Your task to perform on an android device: open chrome and create a bookmark for the current page Image 0: 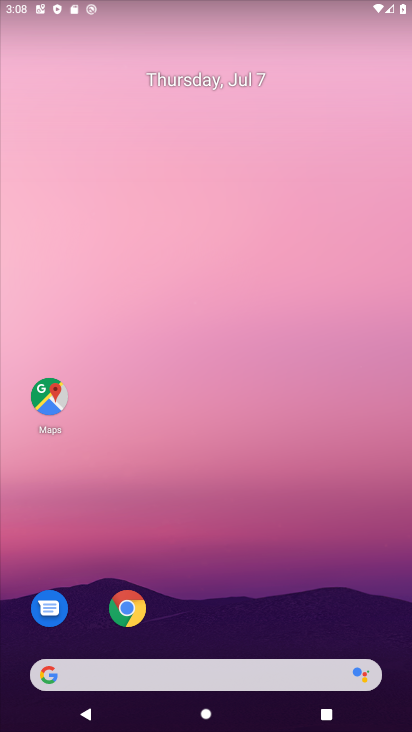
Step 0: drag from (224, 480) to (208, 2)
Your task to perform on an android device: open chrome and create a bookmark for the current page Image 1: 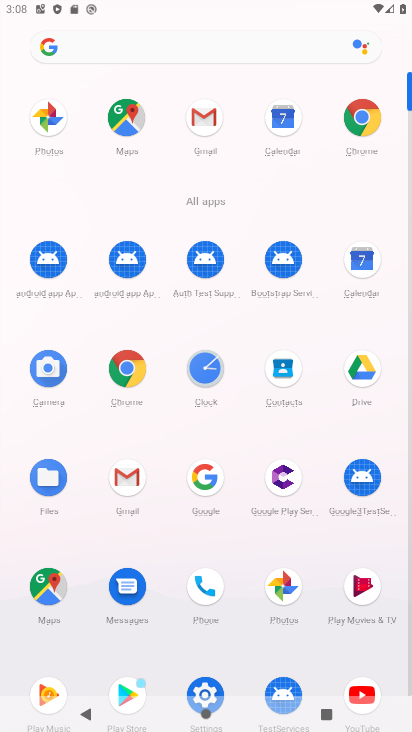
Step 1: click (126, 360)
Your task to perform on an android device: open chrome and create a bookmark for the current page Image 2: 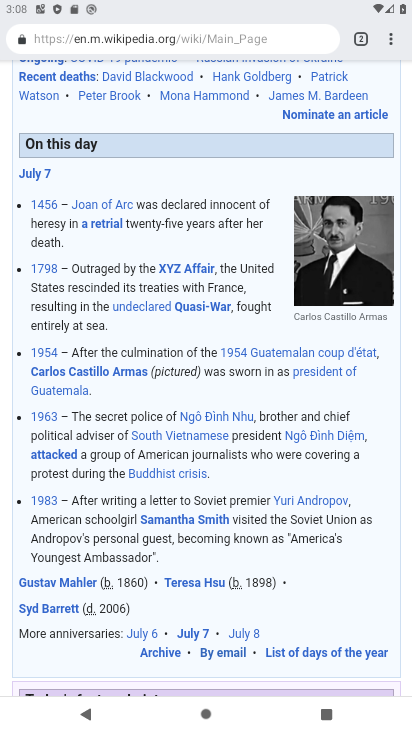
Step 2: click (392, 35)
Your task to perform on an android device: open chrome and create a bookmark for the current page Image 3: 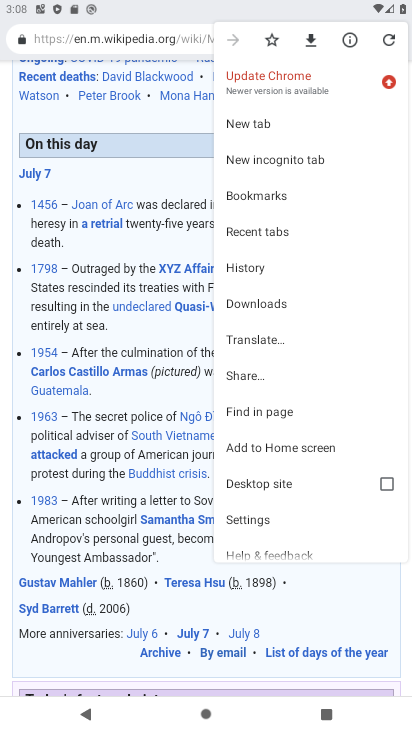
Step 3: click (270, 46)
Your task to perform on an android device: open chrome and create a bookmark for the current page Image 4: 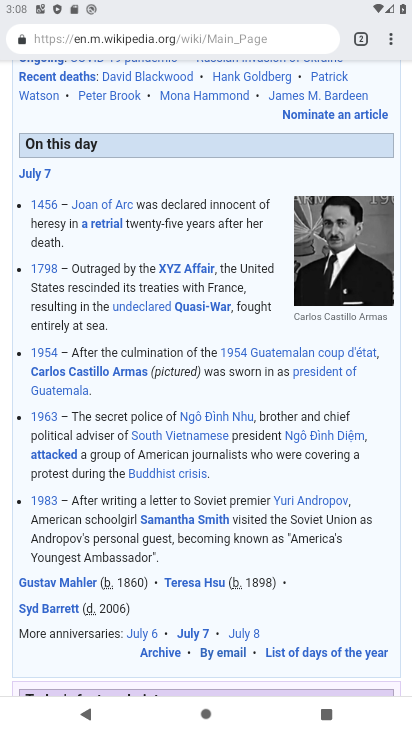
Step 4: task complete